Your task to perform on an android device: Go to network settings Image 0: 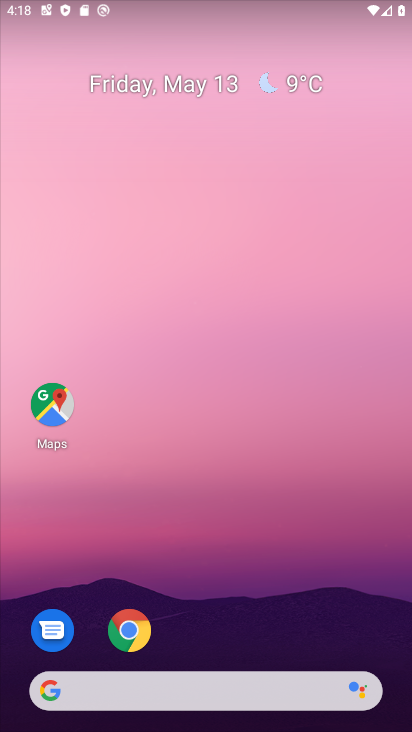
Step 0: drag from (247, 538) to (235, 80)
Your task to perform on an android device: Go to network settings Image 1: 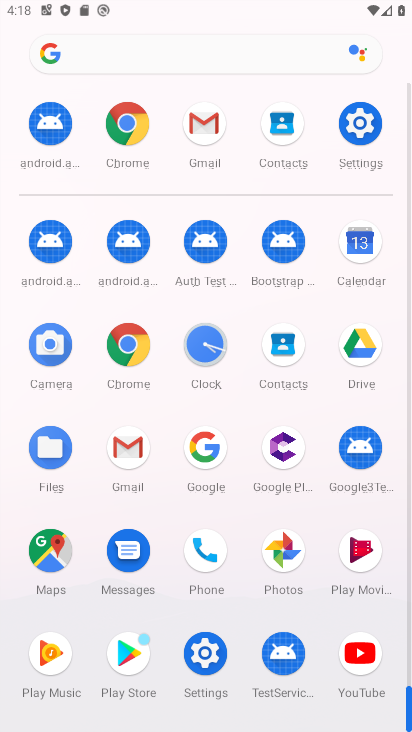
Step 1: drag from (0, 534) to (26, 175)
Your task to perform on an android device: Go to network settings Image 2: 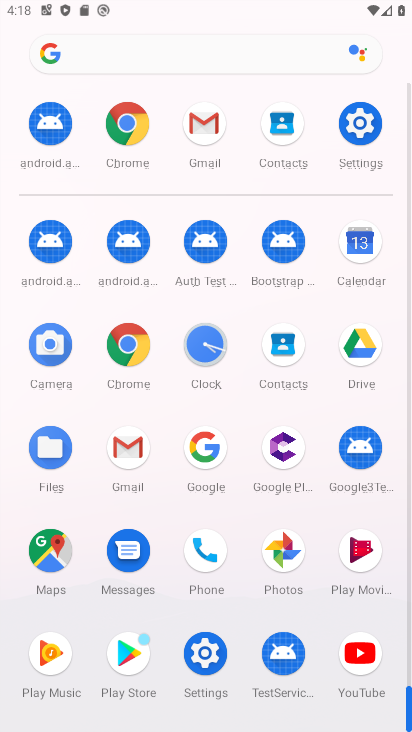
Step 2: click (200, 652)
Your task to perform on an android device: Go to network settings Image 3: 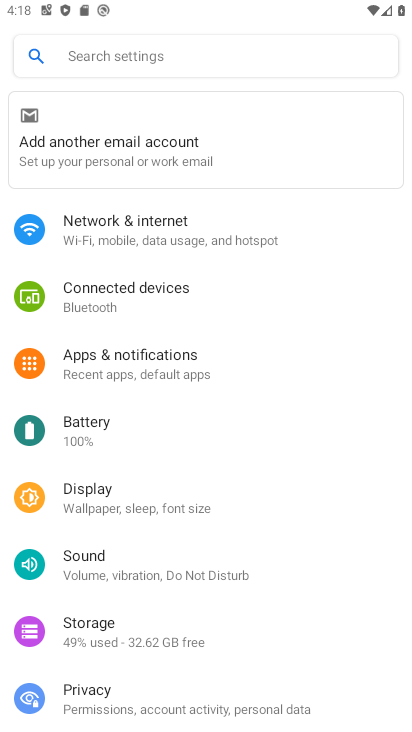
Step 3: click (188, 224)
Your task to perform on an android device: Go to network settings Image 4: 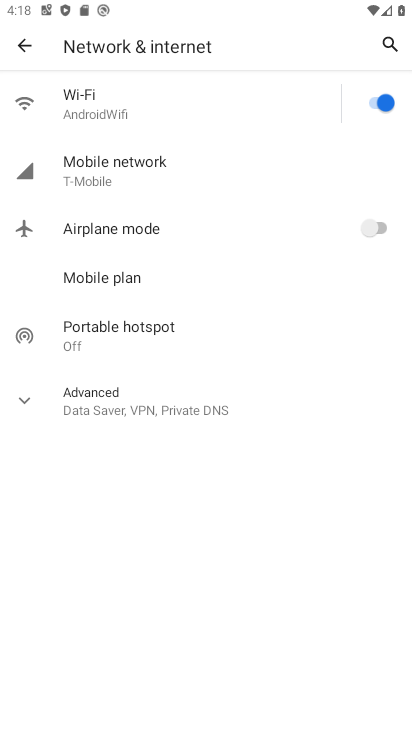
Step 4: click (39, 394)
Your task to perform on an android device: Go to network settings Image 5: 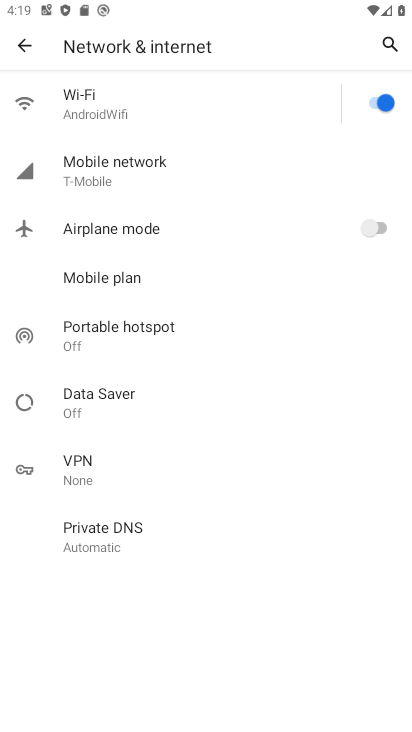
Step 5: task complete